Your task to perform on an android device: all mails in gmail Image 0: 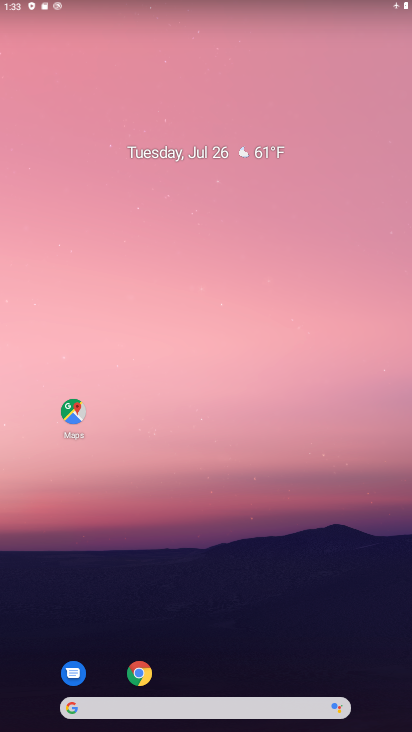
Step 0: drag from (180, 672) to (216, 126)
Your task to perform on an android device: all mails in gmail Image 1: 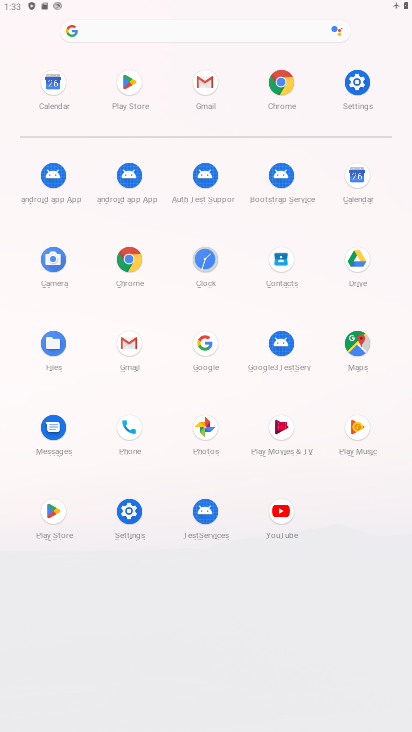
Step 1: click (121, 327)
Your task to perform on an android device: all mails in gmail Image 2: 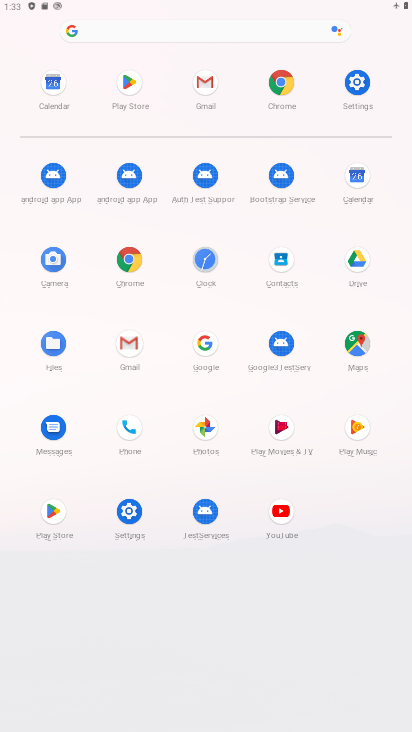
Step 2: click (130, 339)
Your task to perform on an android device: all mails in gmail Image 3: 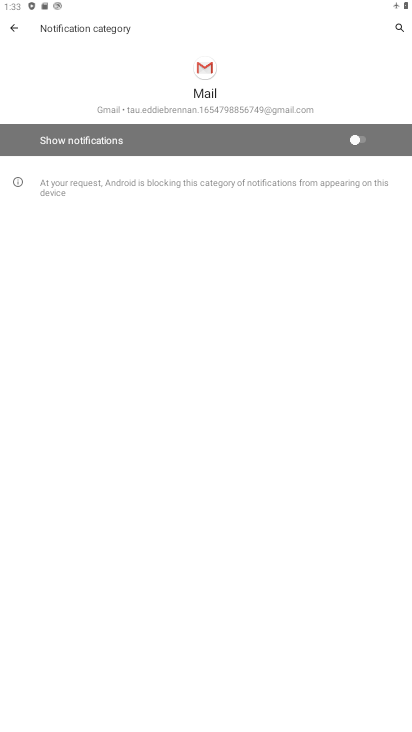
Step 3: click (19, 31)
Your task to perform on an android device: all mails in gmail Image 4: 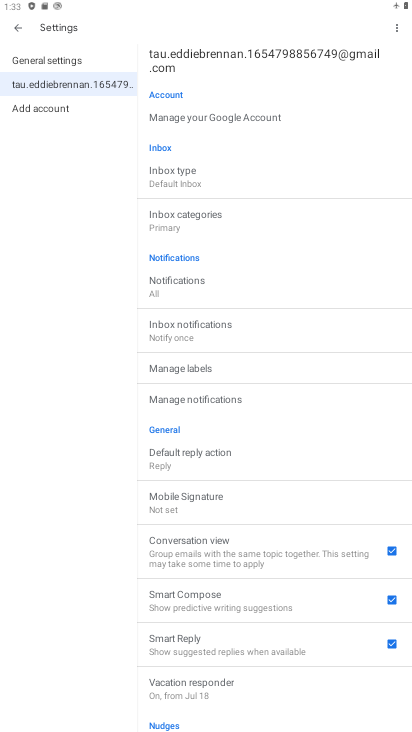
Step 4: click (18, 30)
Your task to perform on an android device: all mails in gmail Image 5: 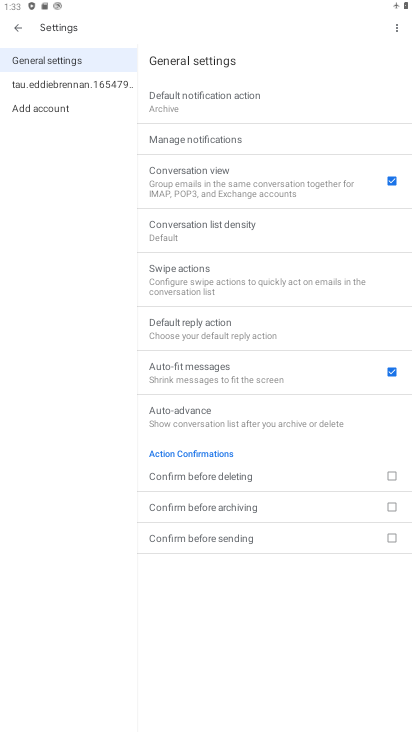
Step 5: click (22, 23)
Your task to perform on an android device: all mails in gmail Image 6: 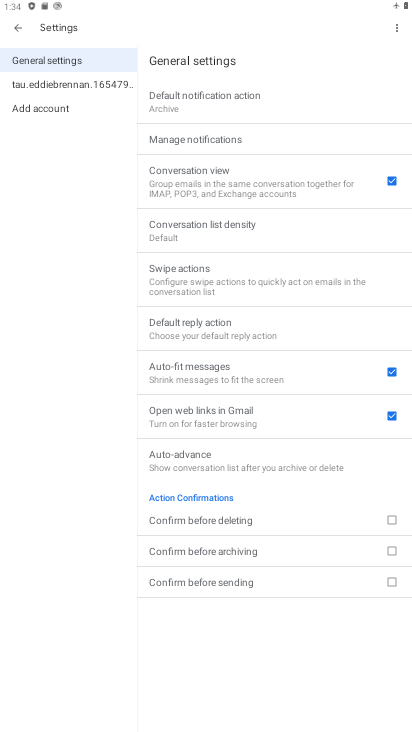
Step 6: click (10, 31)
Your task to perform on an android device: all mails in gmail Image 7: 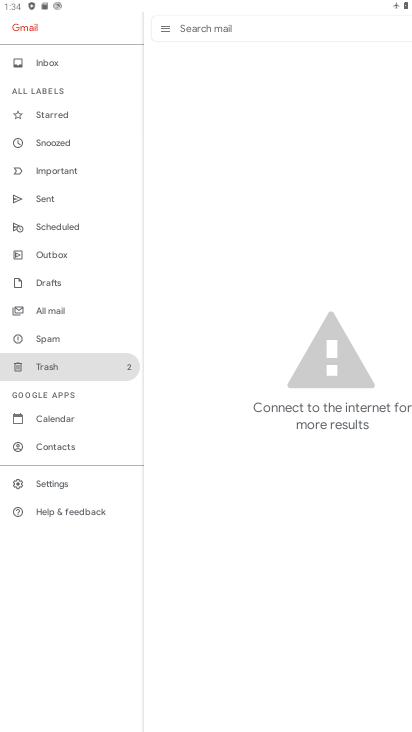
Step 7: click (61, 311)
Your task to perform on an android device: all mails in gmail Image 8: 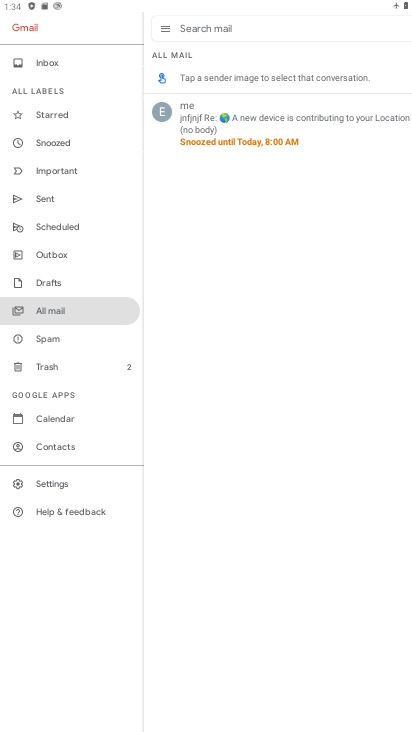
Step 8: click (41, 314)
Your task to perform on an android device: all mails in gmail Image 9: 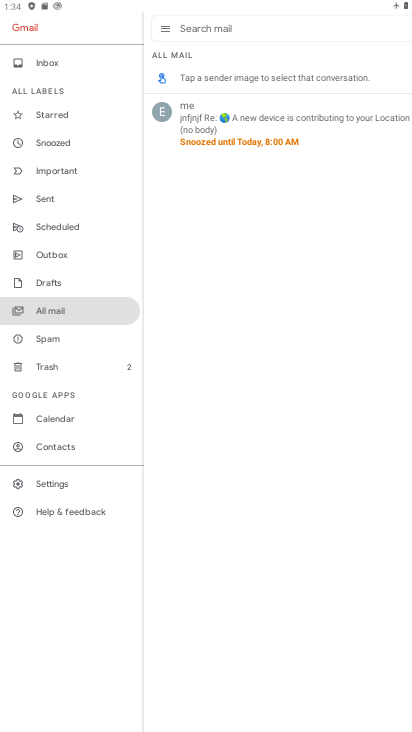
Step 9: task complete